Your task to perform on an android device: search for starred emails in the gmail app Image 0: 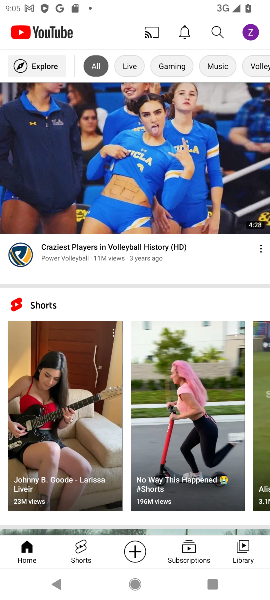
Step 0: press home button
Your task to perform on an android device: search for starred emails in the gmail app Image 1: 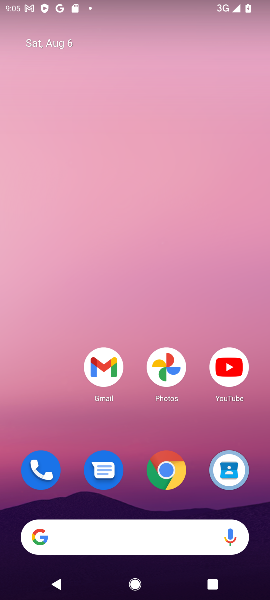
Step 1: drag from (158, 524) to (156, 137)
Your task to perform on an android device: search for starred emails in the gmail app Image 2: 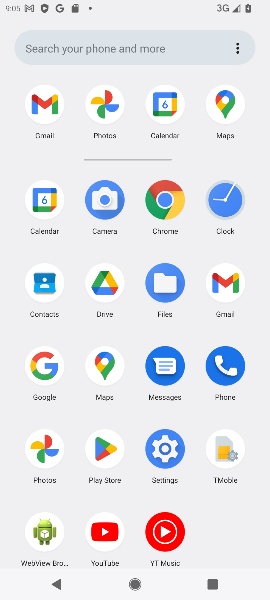
Step 2: click (231, 289)
Your task to perform on an android device: search for starred emails in the gmail app Image 3: 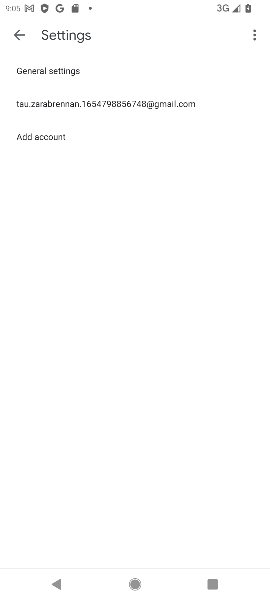
Step 3: click (22, 39)
Your task to perform on an android device: search for starred emails in the gmail app Image 4: 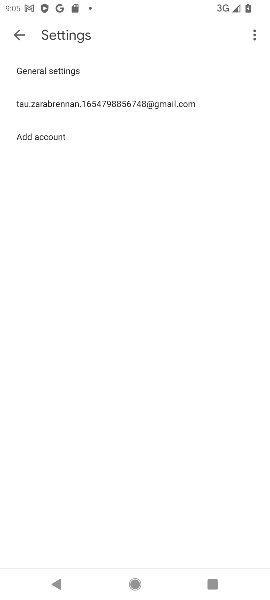
Step 4: click (22, 39)
Your task to perform on an android device: search for starred emails in the gmail app Image 5: 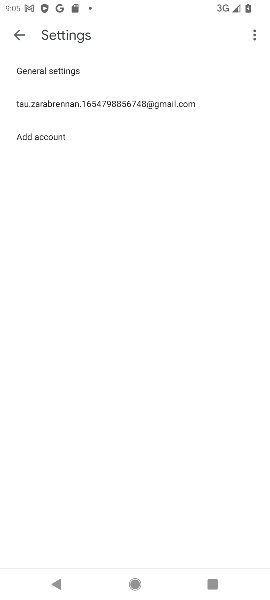
Step 5: click (19, 39)
Your task to perform on an android device: search for starred emails in the gmail app Image 6: 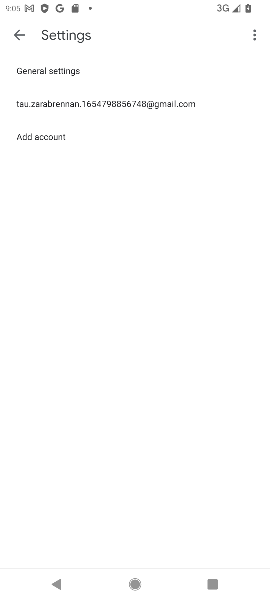
Step 6: click (17, 31)
Your task to perform on an android device: search for starred emails in the gmail app Image 7: 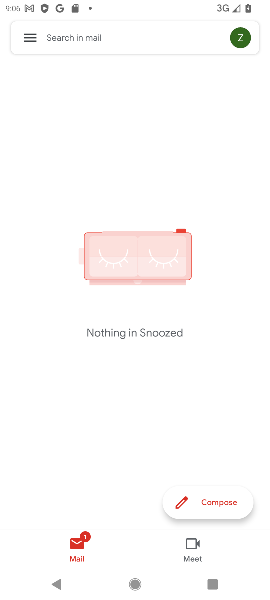
Step 7: click (31, 43)
Your task to perform on an android device: search for starred emails in the gmail app Image 8: 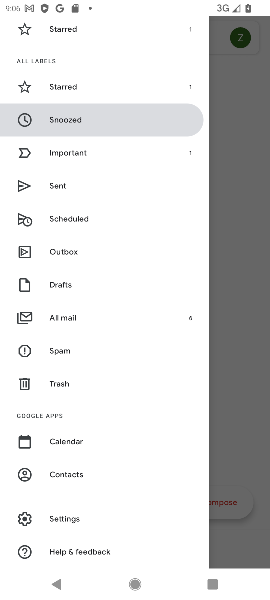
Step 8: drag from (63, 480) to (57, 400)
Your task to perform on an android device: search for starred emails in the gmail app Image 9: 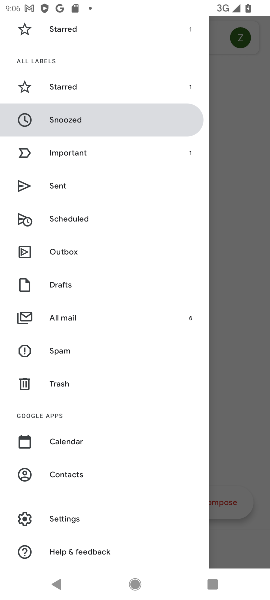
Step 9: click (71, 87)
Your task to perform on an android device: search for starred emails in the gmail app Image 10: 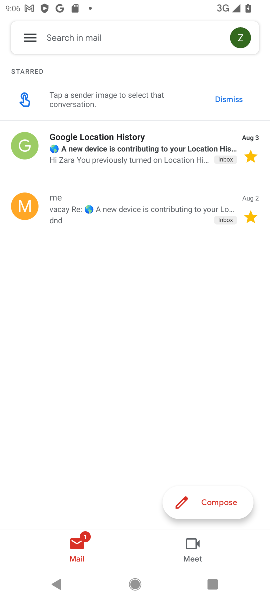
Step 10: task complete